Your task to perform on an android device: turn notification dots on Image 0: 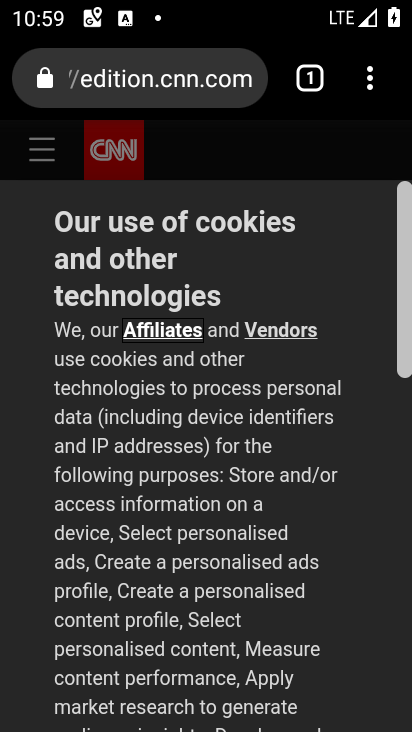
Step 0: press home button
Your task to perform on an android device: turn notification dots on Image 1: 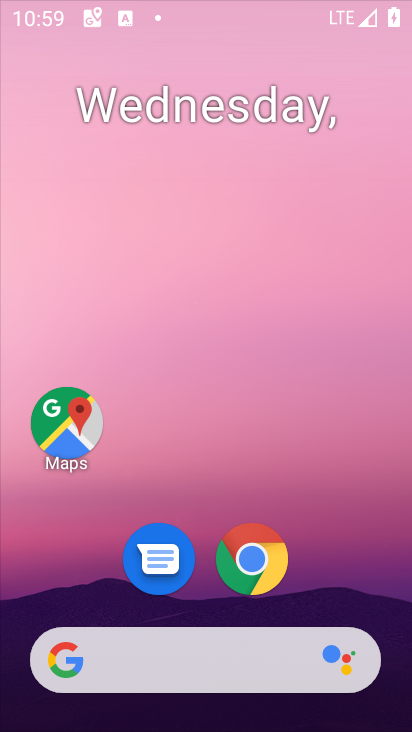
Step 1: drag from (289, 686) to (322, 194)
Your task to perform on an android device: turn notification dots on Image 2: 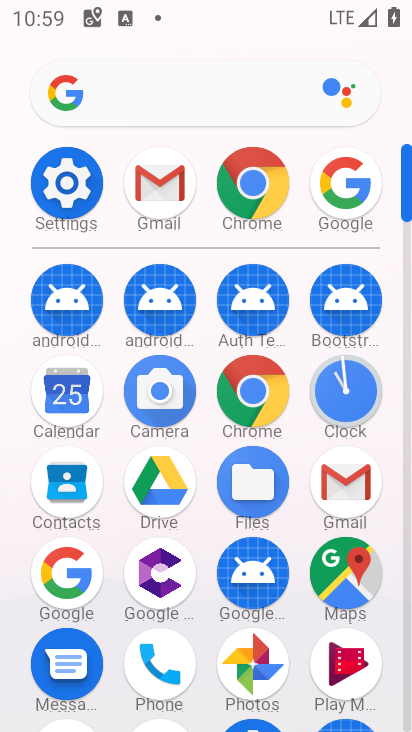
Step 2: click (72, 203)
Your task to perform on an android device: turn notification dots on Image 3: 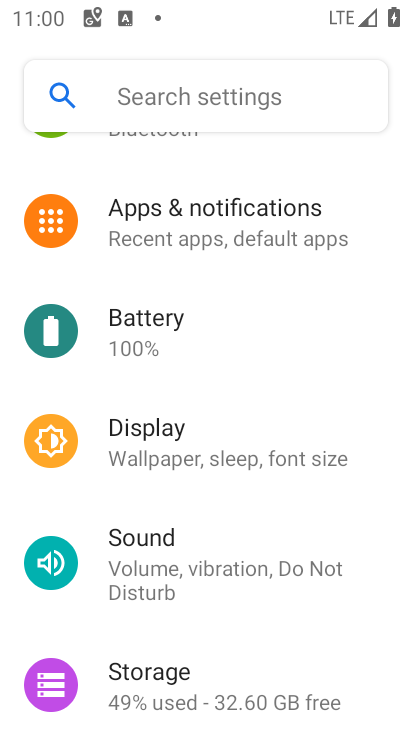
Step 3: click (229, 242)
Your task to perform on an android device: turn notification dots on Image 4: 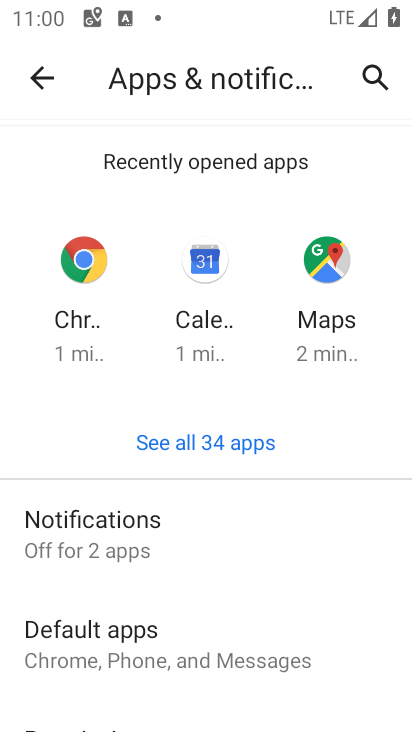
Step 4: click (152, 537)
Your task to perform on an android device: turn notification dots on Image 5: 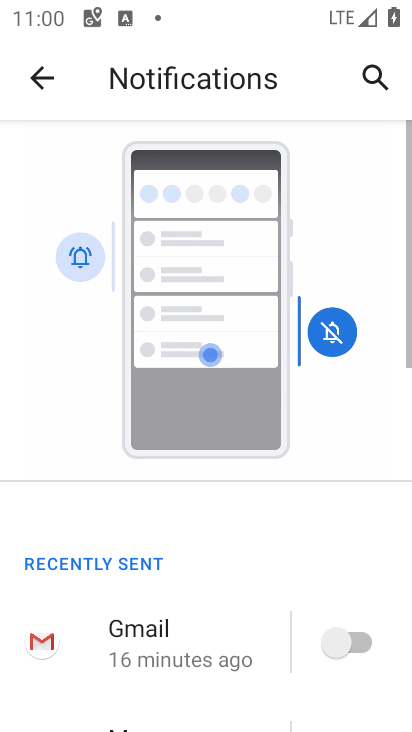
Step 5: drag from (153, 557) to (149, 118)
Your task to perform on an android device: turn notification dots on Image 6: 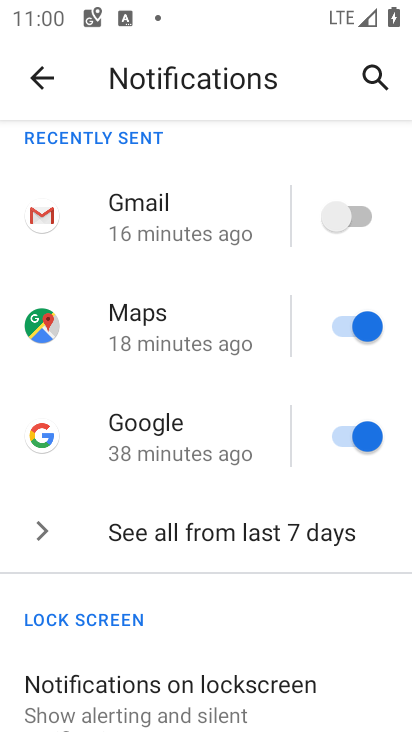
Step 6: drag from (132, 619) to (152, 259)
Your task to perform on an android device: turn notification dots on Image 7: 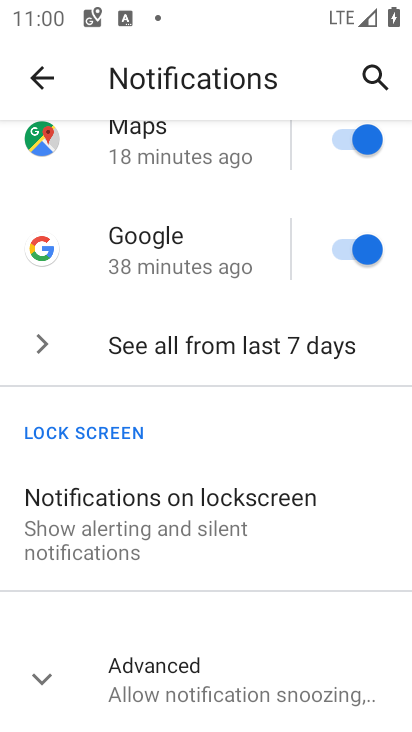
Step 7: click (152, 686)
Your task to perform on an android device: turn notification dots on Image 8: 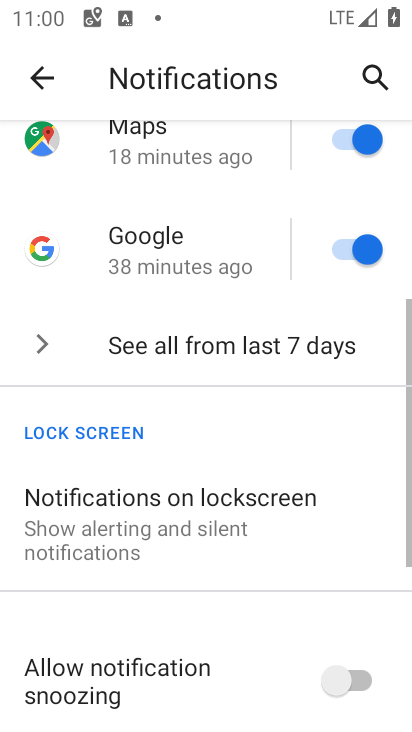
Step 8: task complete